Your task to perform on an android device: Open the calendar and show me this week's events? Image 0: 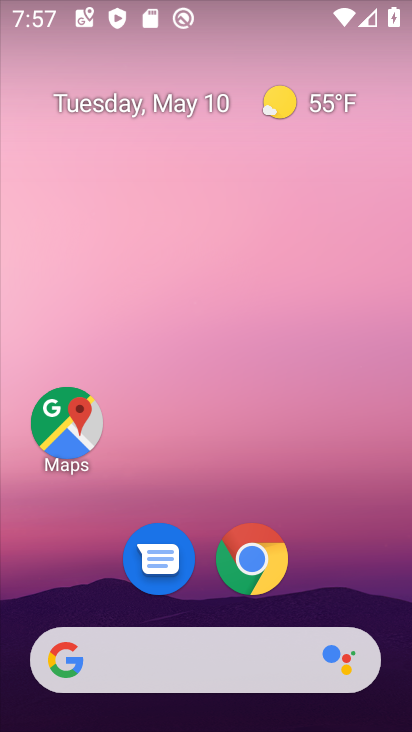
Step 0: drag from (216, 718) to (190, 202)
Your task to perform on an android device: Open the calendar and show me this week's events? Image 1: 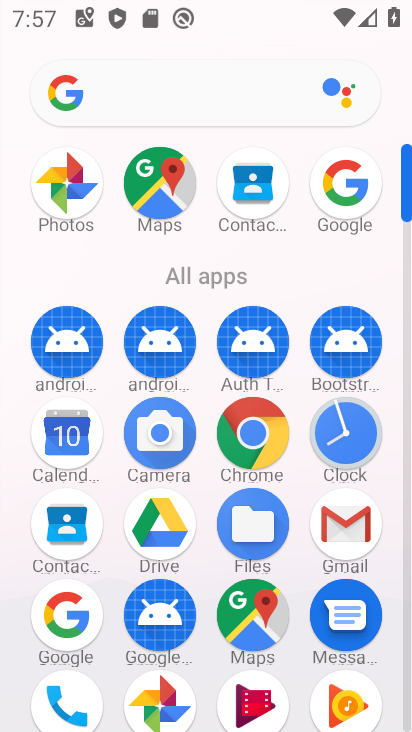
Step 1: click (69, 431)
Your task to perform on an android device: Open the calendar and show me this week's events? Image 2: 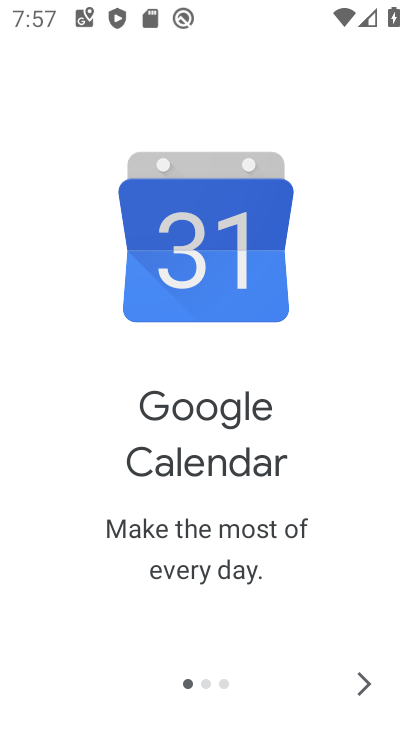
Step 2: click (365, 680)
Your task to perform on an android device: Open the calendar and show me this week's events? Image 3: 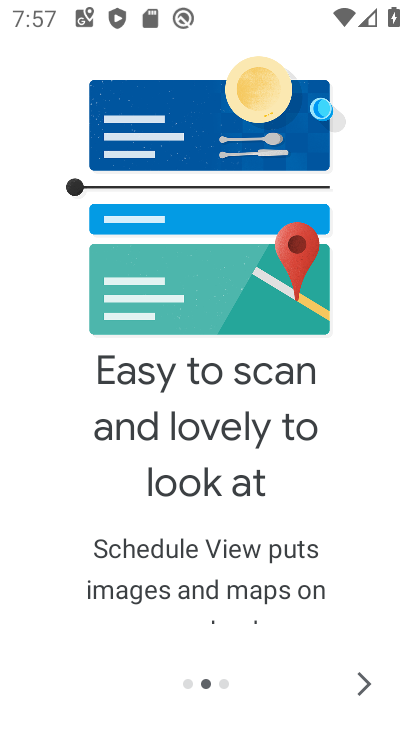
Step 3: click (358, 679)
Your task to perform on an android device: Open the calendar and show me this week's events? Image 4: 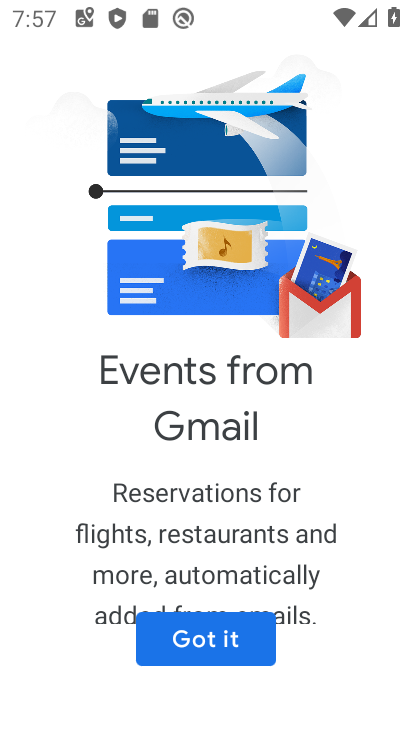
Step 4: click (224, 634)
Your task to perform on an android device: Open the calendar and show me this week's events? Image 5: 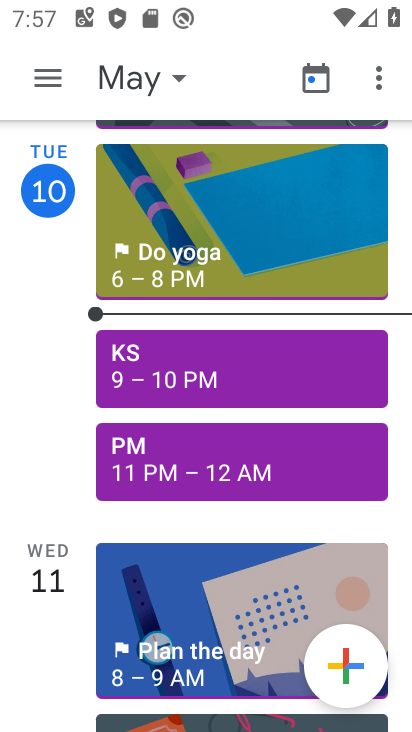
Step 5: click (43, 76)
Your task to perform on an android device: Open the calendar and show me this week's events? Image 6: 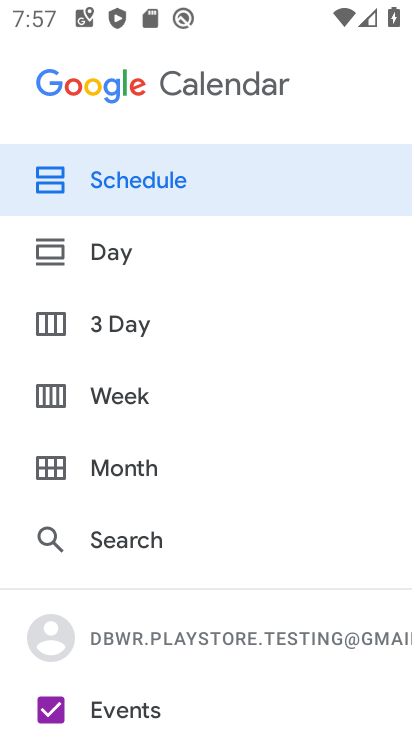
Step 6: drag from (200, 697) to (190, 272)
Your task to perform on an android device: Open the calendar and show me this week's events? Image 7: 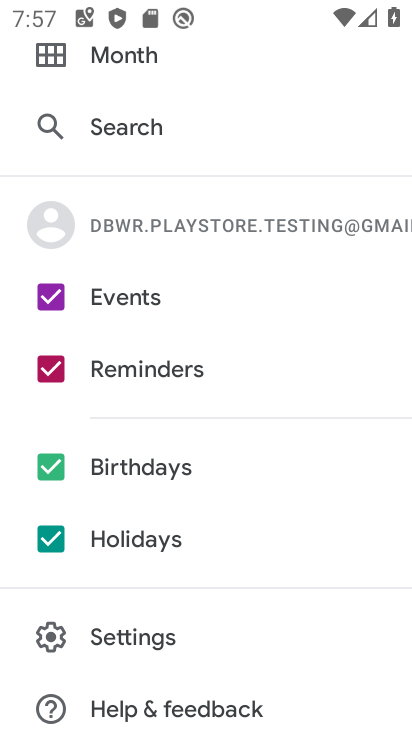
Step 7: click (51, 541)
Your task to perform on an android device: Open the calendar and show me this week's events? Image 8: 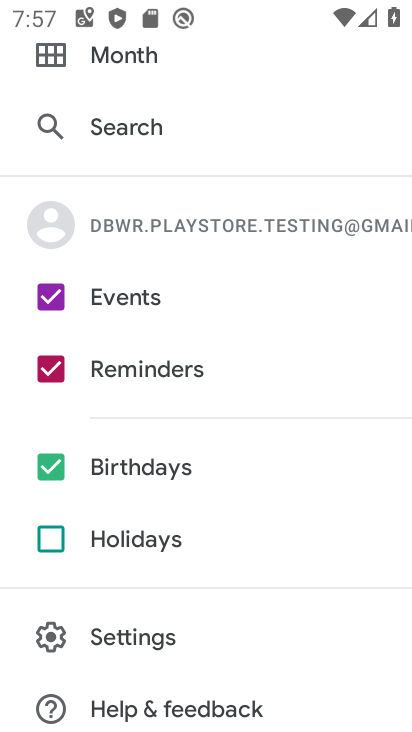
Step 8: click (52, 457)
Your task to perform on an android device: Open the calendar and show me this week's events? Image 9: 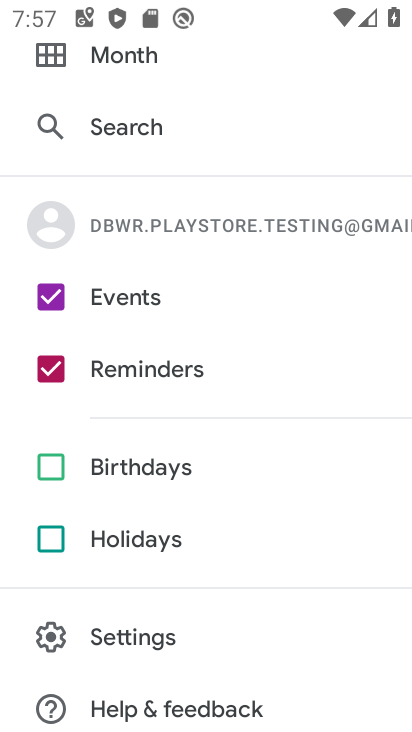
Step 9: click (58, 360)
Your task to perform on an android device: Open the calendar and show me this week's events? Image 10: 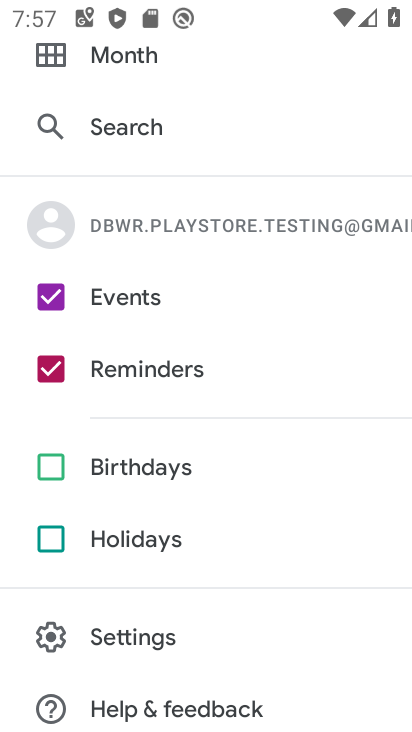
Step 10: click (52, 366)
Your task to perform on an android device: Open the calendar and show me this week's events? Image 11: 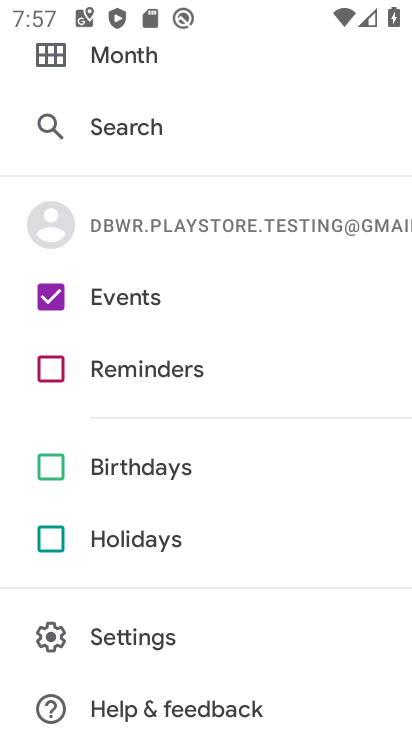
Step 11: drag from (280, 192) to (236, 588)
Your task to perform on an android device: Open the calendar and show me this week's events? Image 12: 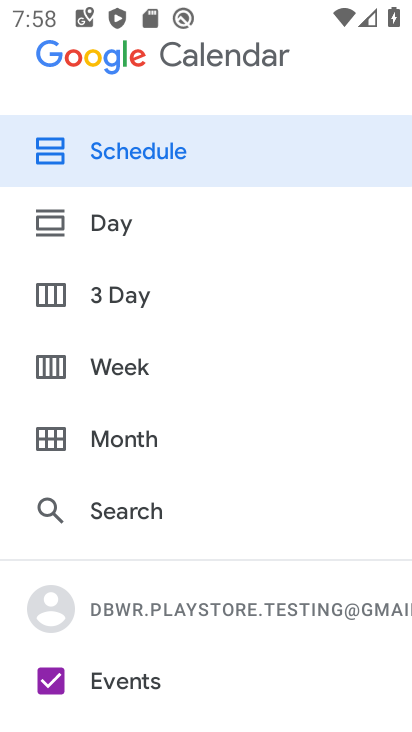
Step 12: click (126, 367)
Your task to perform on an android device: Open the calendar and show me this week's events? Image 13: 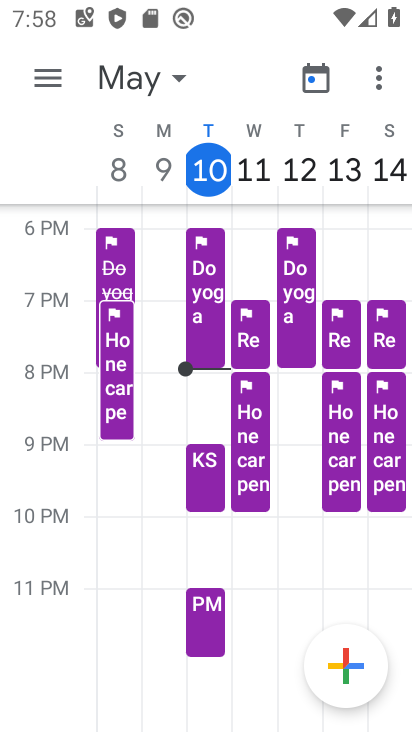
Step 13: task complete